Your task to perform on an android device: Go to Google maps Image 0: 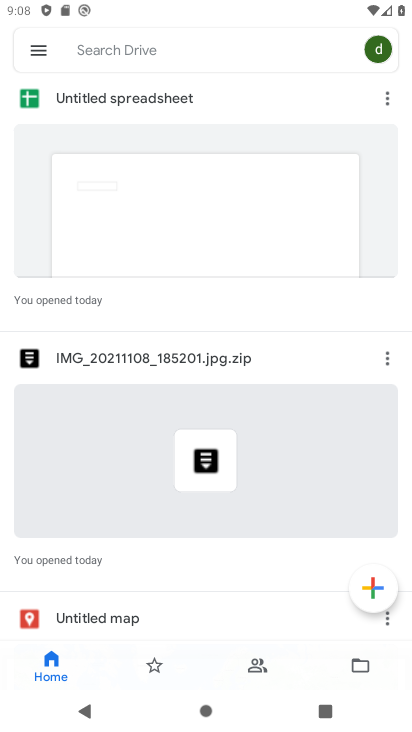
Step 0: press home button
Your task to perform on an android device: Go to Google maps Image 1: 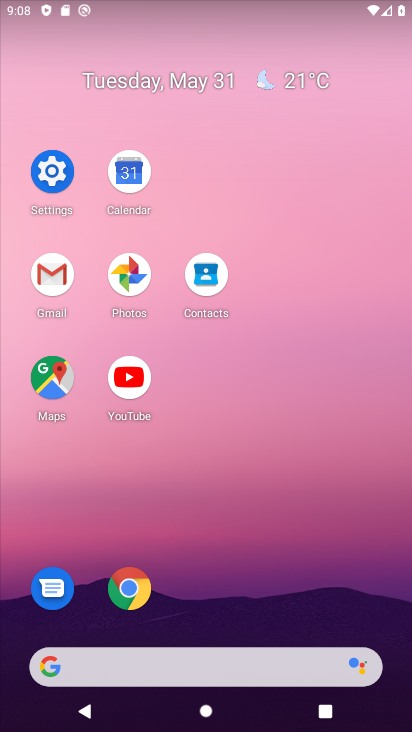
Step 1: click (58, 368)
Your task to perform on an android device: Go to Google maps Image 2: 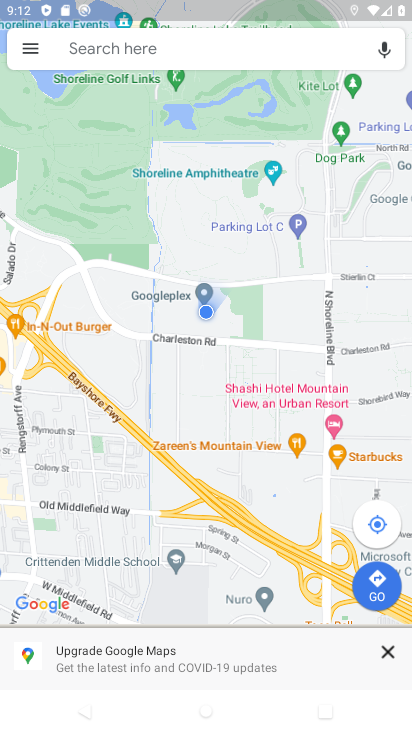
Step 2: task complete